Your task to perform on an android device: toggle javascript in the chrome app Image 0: 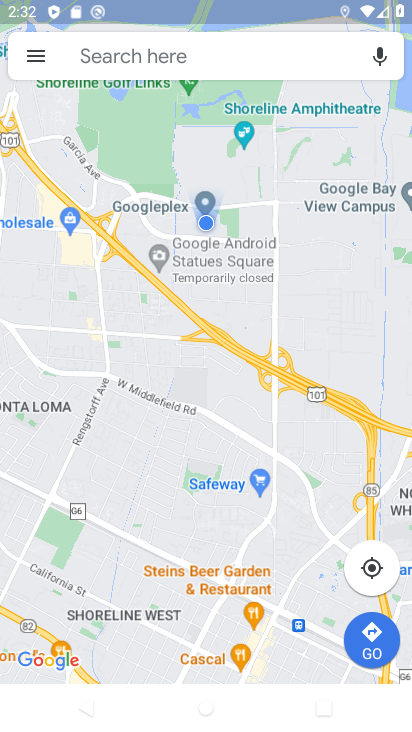
Step 0: press back button
Your task to perform on an android device: toggle javascript in the chrome app Image 1: 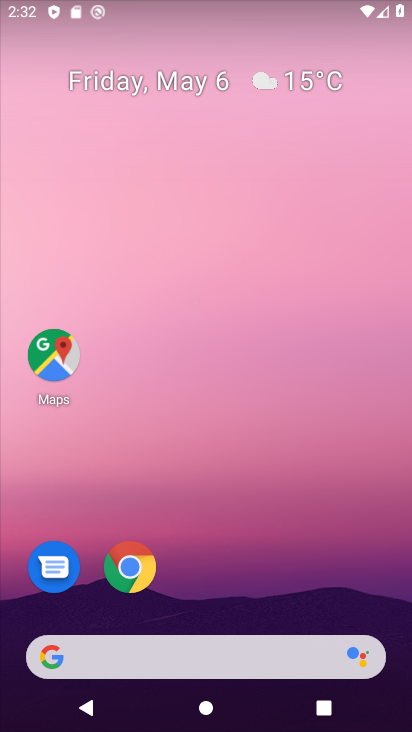
Step 1: click (135, 573)
Your task to perform on an android device: toggle javascript in the chrome app Image 2: 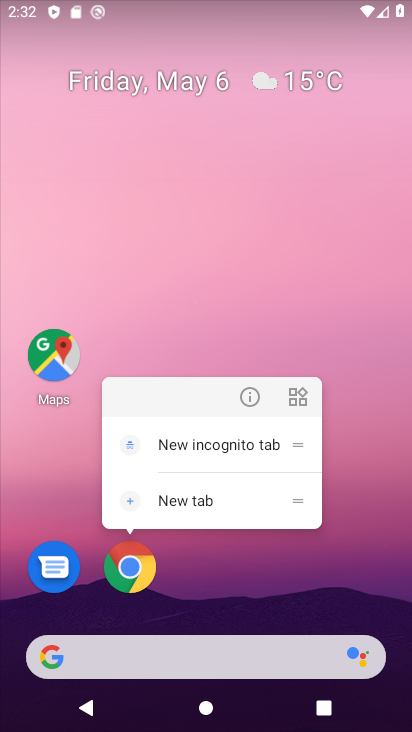
Step 2: click (135, 562)
Your task to perform on an android device: toggle javascript in the chrome app Image 3: 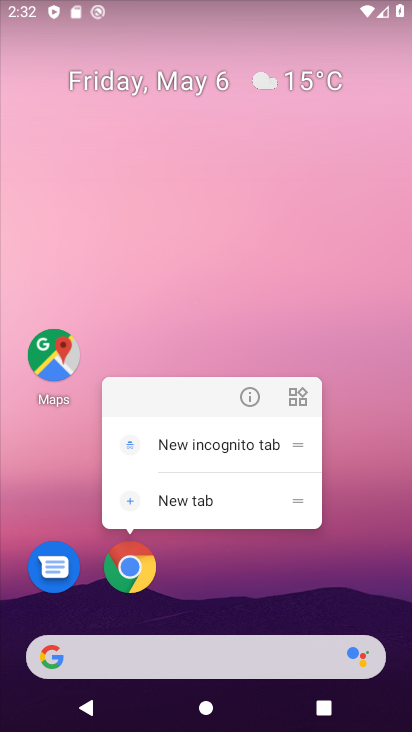
Step 3: click (120, 580)
Your task to perform on an android device: toggle javascript in the chrome app Image 4: 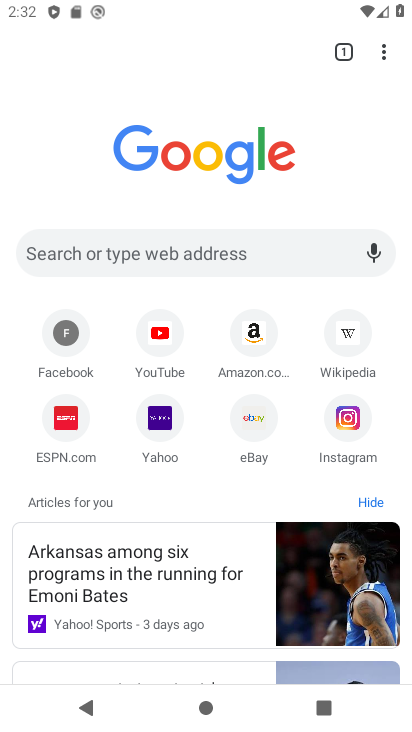
Step 4: drag from (390, 58) to (325, 436)
Your task to perform on an android device: toggle javascript in the chrome app Image 5: 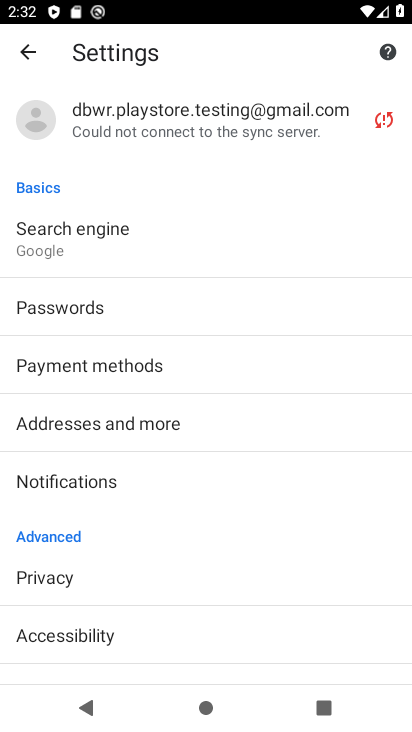
Step 5: drag from (107, 632) to (187, 330)
Your task to perform on an android device: toggle javascript in the chrome app Image 6: 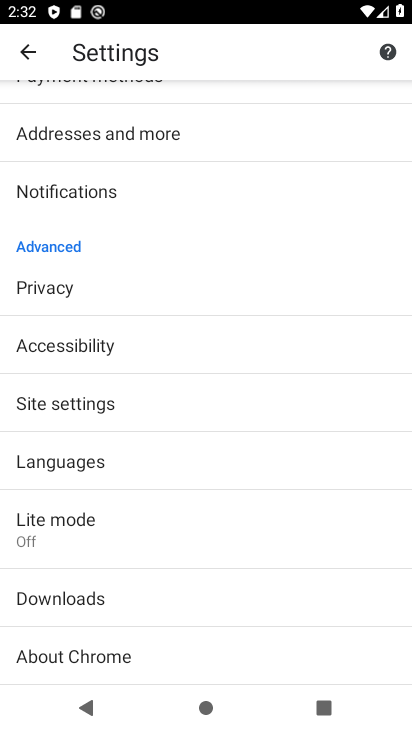
Step 6: click (136, 405)
Your task to perform on an android device: toggle javascript in the chrome app Image 7: 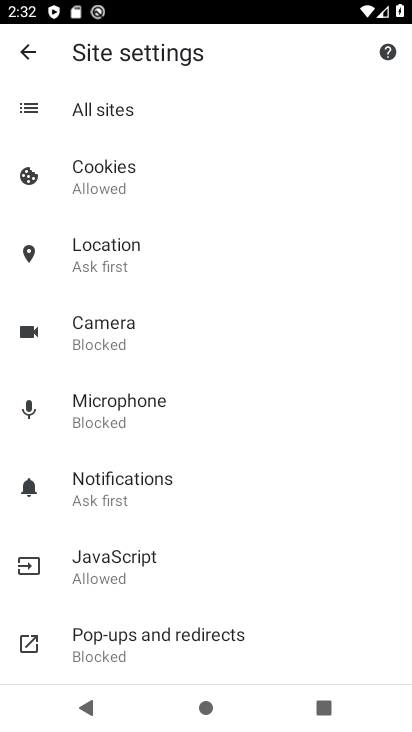
Step 7: click (168, 580)
Your task to perform on an android device: toggle javascript in the chrome app Image 8: 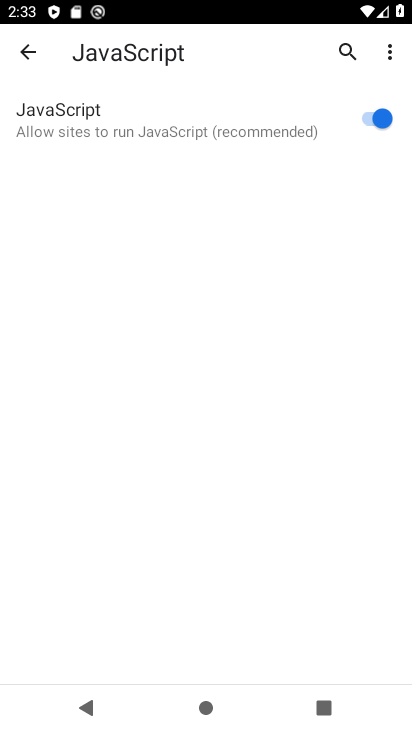
Step 8: click (368, 114)
Your task to perform on an android device: toggle javascript in the chrome app Image 9: 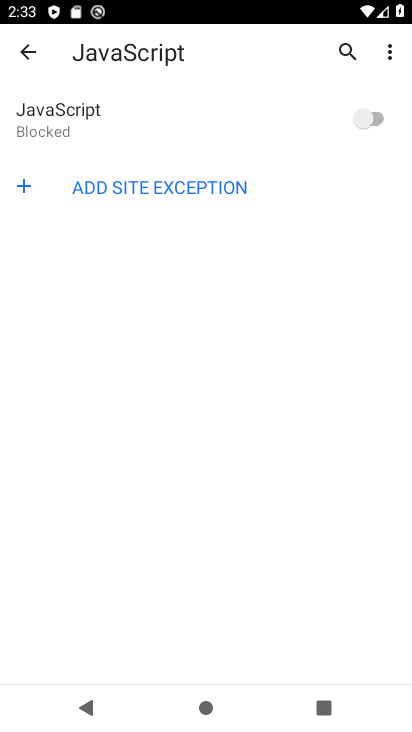
Step 9: task complete